Your task to perform on an android device: Open CNN.com Image 0: 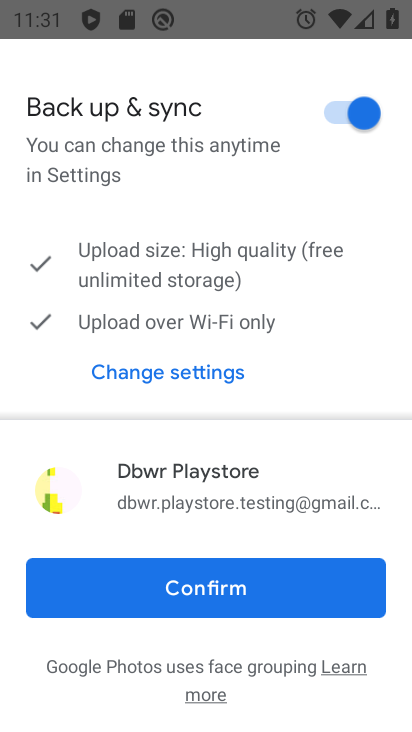
Step 0: press home button
Your task to perform on an android device: Open CNN.com Image 1: 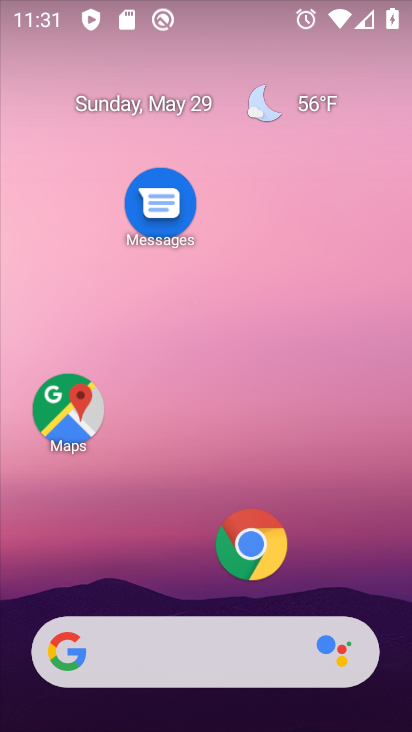
Step 1: click (247, 538)
Your task to perform on an android device: Open CNN.com Image 2: 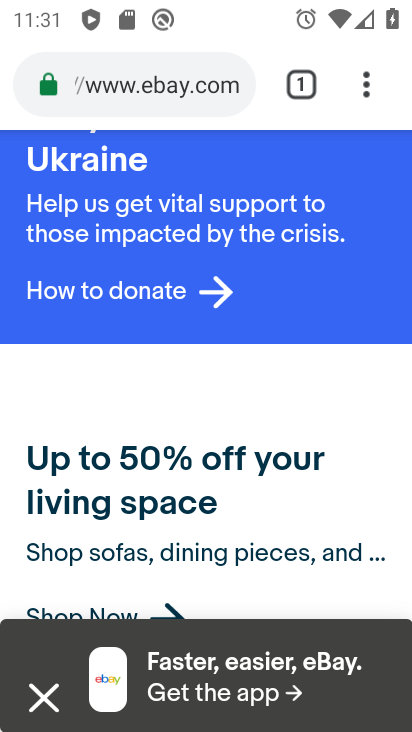
Step 2: click (305, 81)
Your task to perform on an android device: Open CNN.com Image 3: 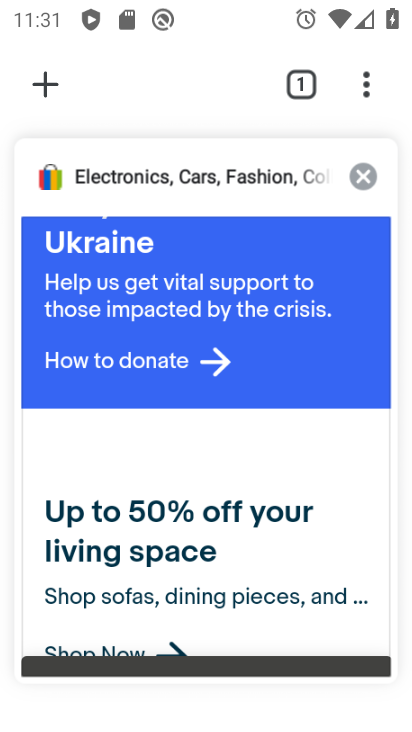
Step 3: click (362, 174)
Your task to perform on an android device: Open CNN.com Image 4: 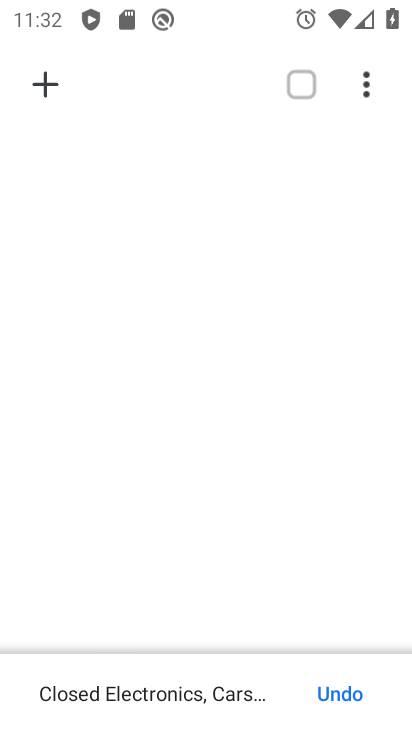
Step 4: click (46, 87)
Your task to perform on an android device: Open CNN.com Image 5: 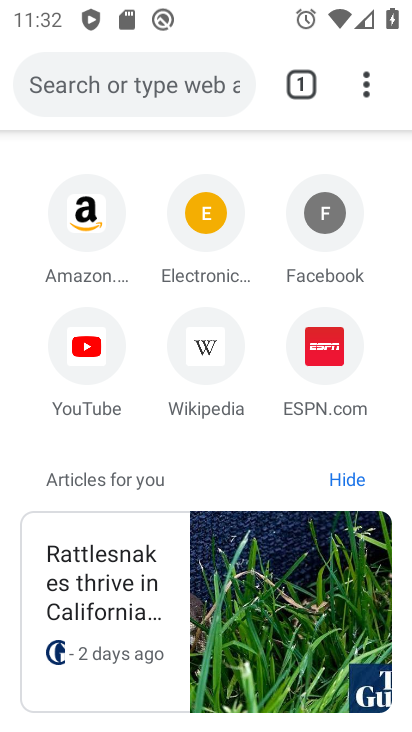
Step 5: click (107, 77)
Your task to perform on an android device: Open CNN.com Image 6: 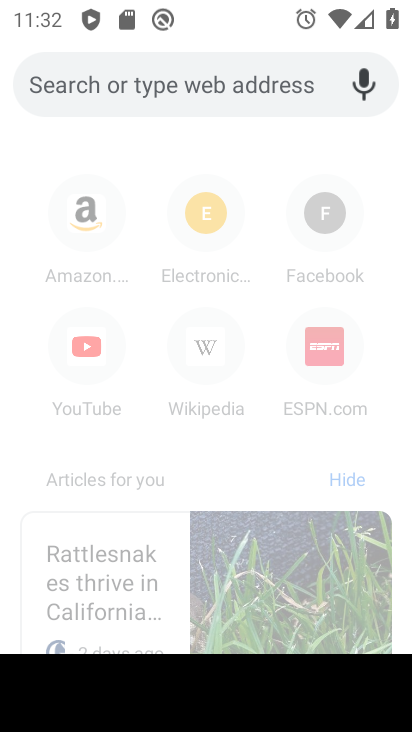
Step 6: type "cnn.com"
Your task to perform on an android device: Open CNN.com Image 7: 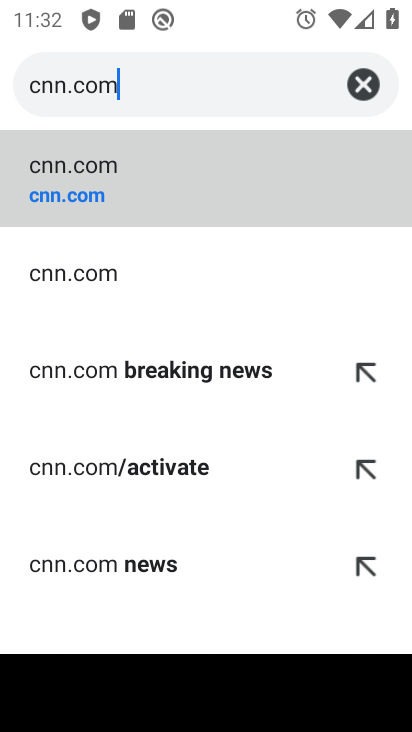
Step 7: click (142, 178)
Your task to perform on an android device: Open CNN.com Image 8: 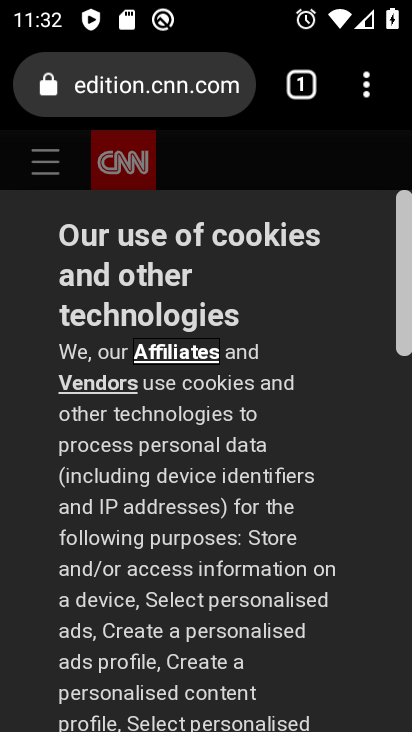
Step 8: drag from (271, 543) to (255, 193)
Your task to perform on an android device: Open CNN.com Image 9: 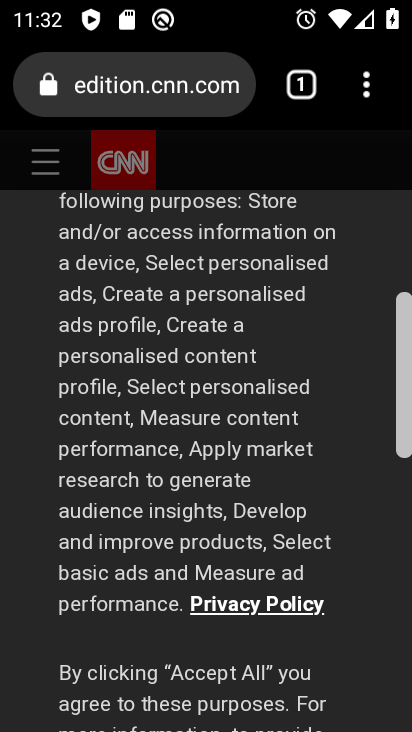
Step 9: drag from (196, 591) to (209, 190)
Your task to perform on an android device: Open CNN.com Image 10: 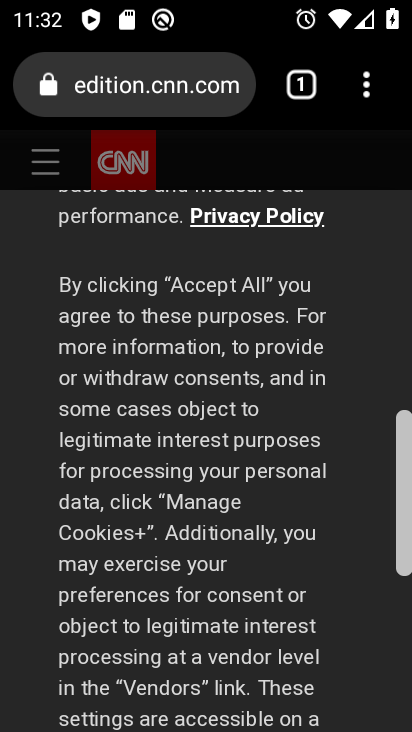
Step 10: drag from (211, 385) to (209, 266)
Your task to perform on an android device: Open CNN.com Image 11: 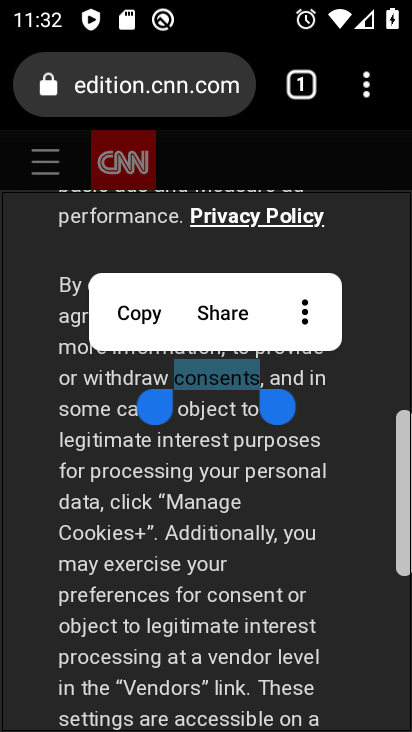
Step 11: drag from (215, 411) to (215, 317)
Your task to perform on an android device: Open CNN.com Image 12: 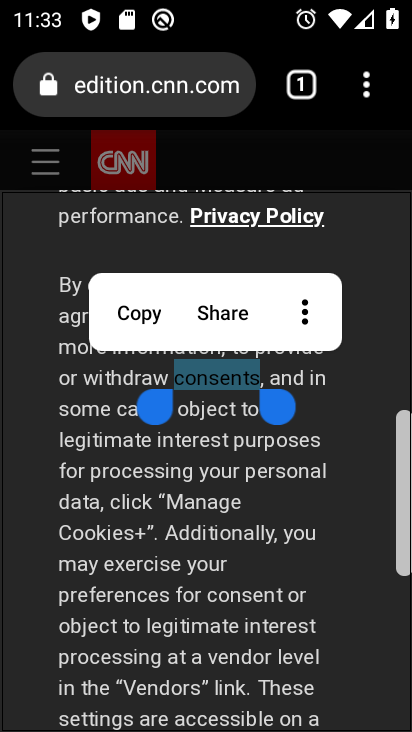
Step 12: click (277, 648)
Your task to perform on an android device: Open CNN.com Image 13: 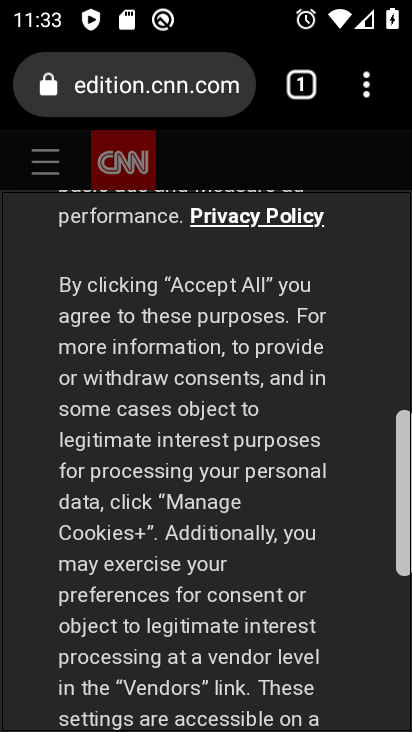
Step 13: drag from (281, 674) to (289, 293)
Your task to perform on an android device: Open CNN.com Image 14: 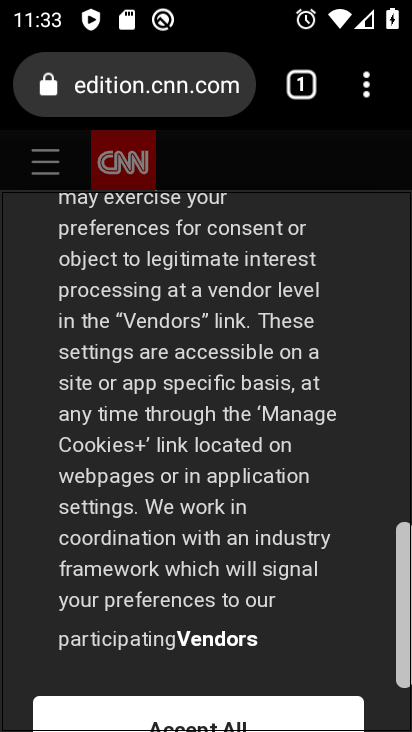
Step 14: click (249, 719)
Your task to perform on an android device: Open CNN.com Image 15: 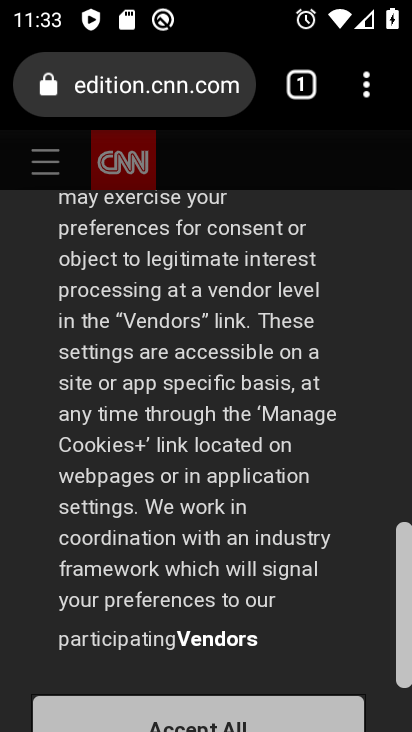
Step 15: task complete